Your task to perform on an android device: What's the weather? Image 0: 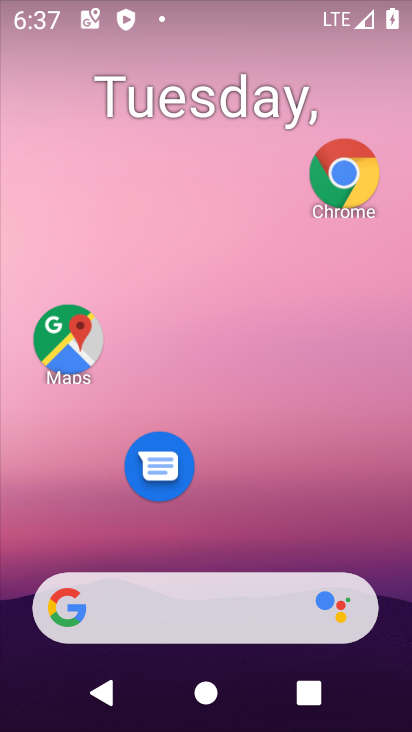
Step 0: drag from (235, 540) to (13, 666)
Your task to perform on an android device: What's the weather? Image 1: 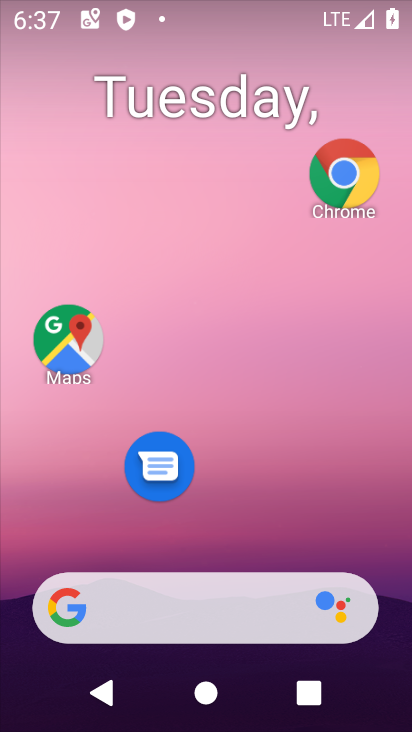
Step 1: click (330, 149)
Your task to perform on an android device: What's the weather? Image 2: 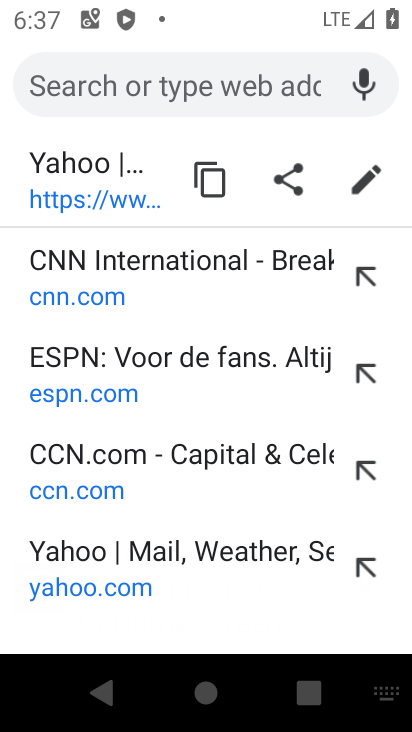
Step 2: type "What's the weather?"
Your task to perform on an android device: What's the weather? Image 3: 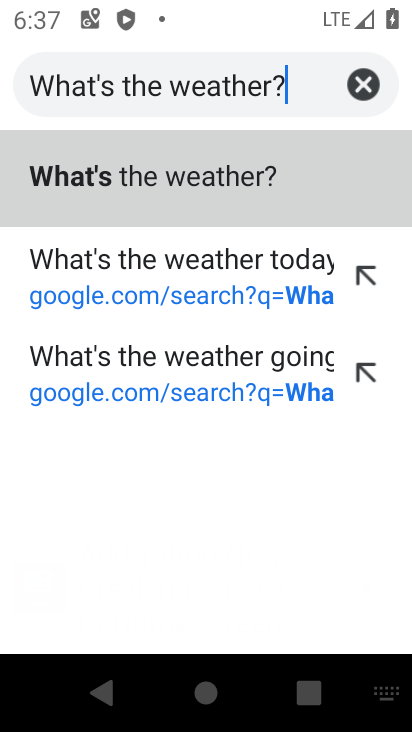
Step 3: click (148, 156)
Your task to perform on an android device: What's the weather? Image 4: 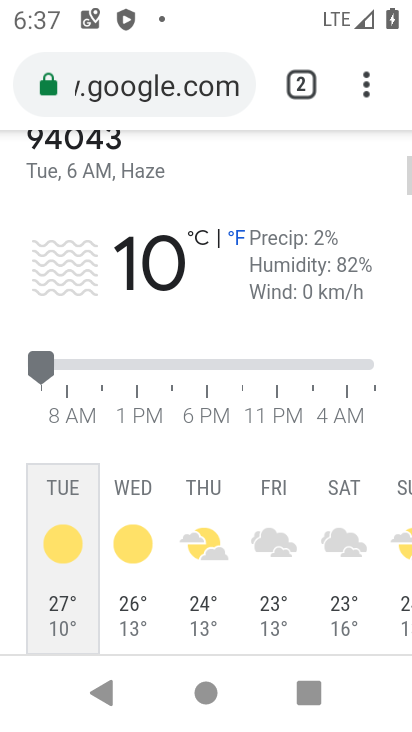
Step 4: task complete